Your task to perform on an android device: Search for alienware area 51 on bestbuy.com, select the first entry, add it to the cart, then select checkout. Image 0: 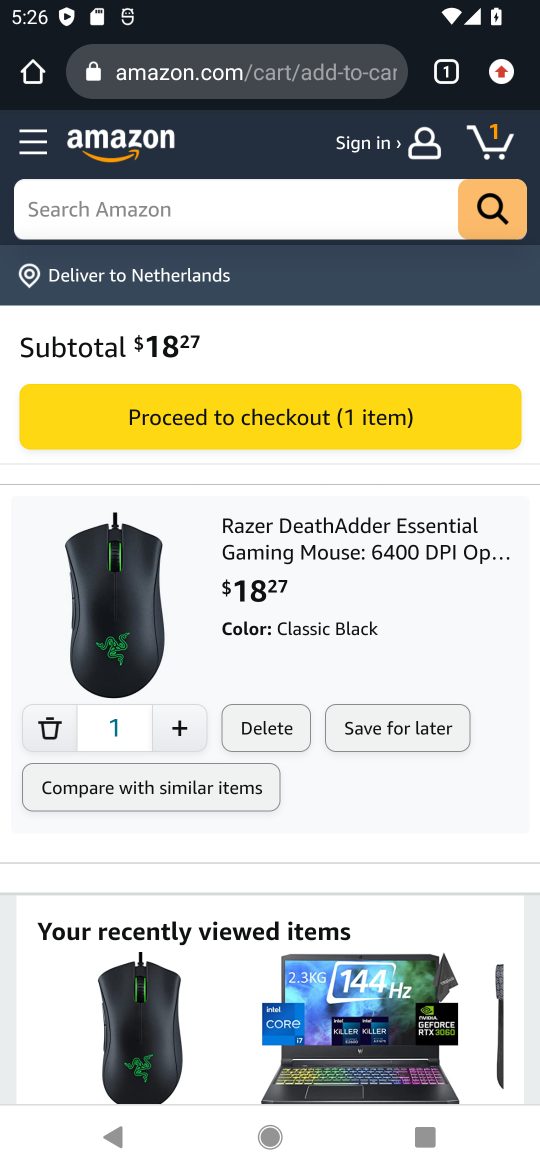
Step 0: press home button
Your task to perform on an android device: Search for alienware area 51 on bestbuy.com, select the first entry, add it to the cart, then select checkout. Image 1: 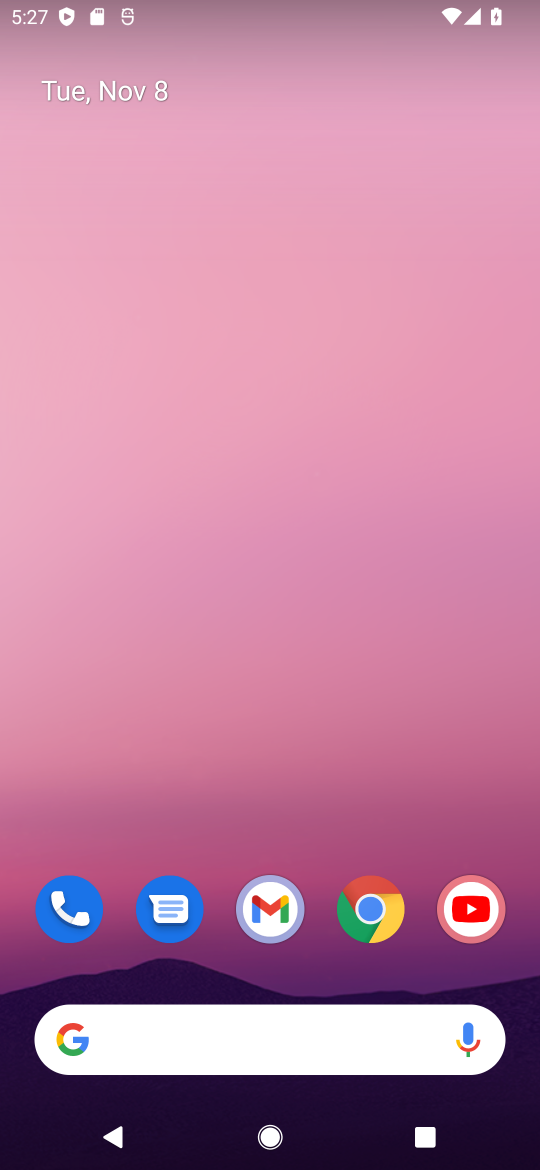
Step 1: click (365, 909)
Your task to perform on an android device: Search for alienware area 51 on bestbuy.com, select the first entry, add it to the cart, then select checkout. Image 2: 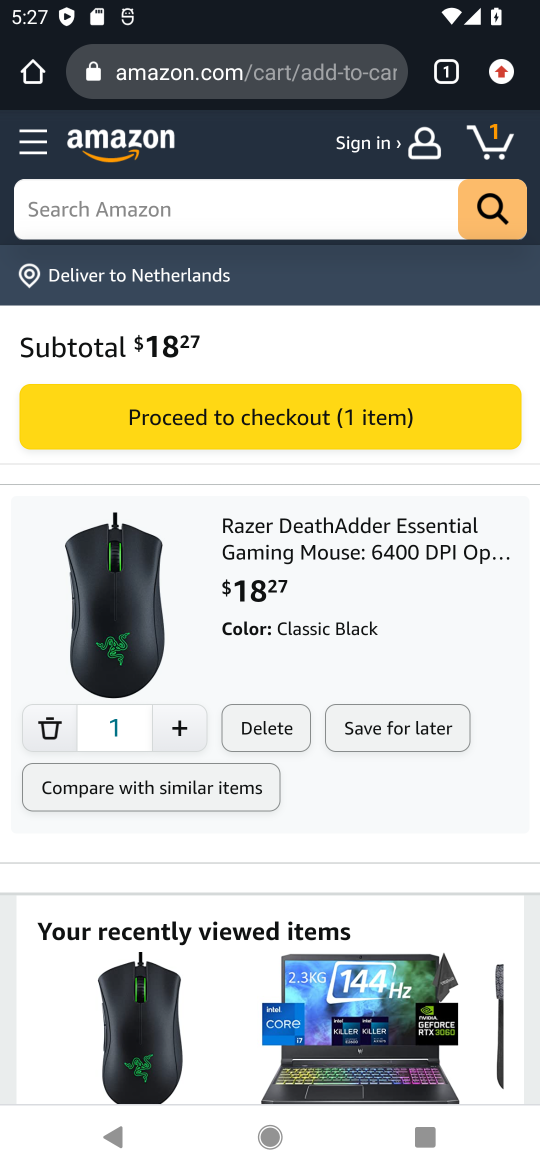
Step 2: click (216, 72)
Your task to perform on an android device: Search for alienware area 51 on bestbuy.com, select the first entry, add it to the cart, then select checkout. Image 3: 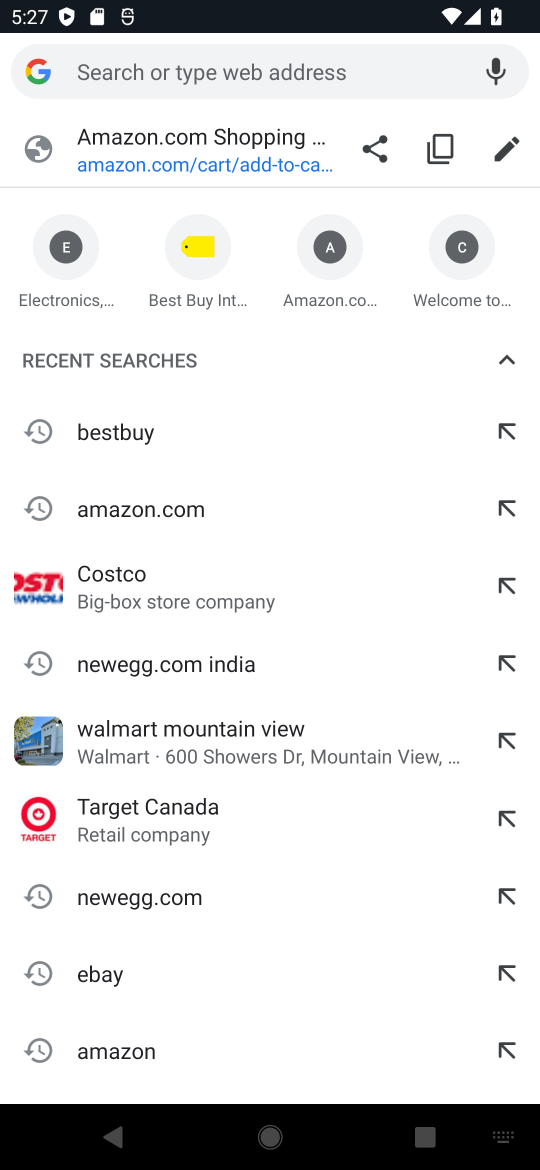
Step 3: click (216, 72)
Your task to perform on an android device: Search for alienware area 51 on bestbuy.com, select the first entry, add it to the cart, then select checkout. Image 4: 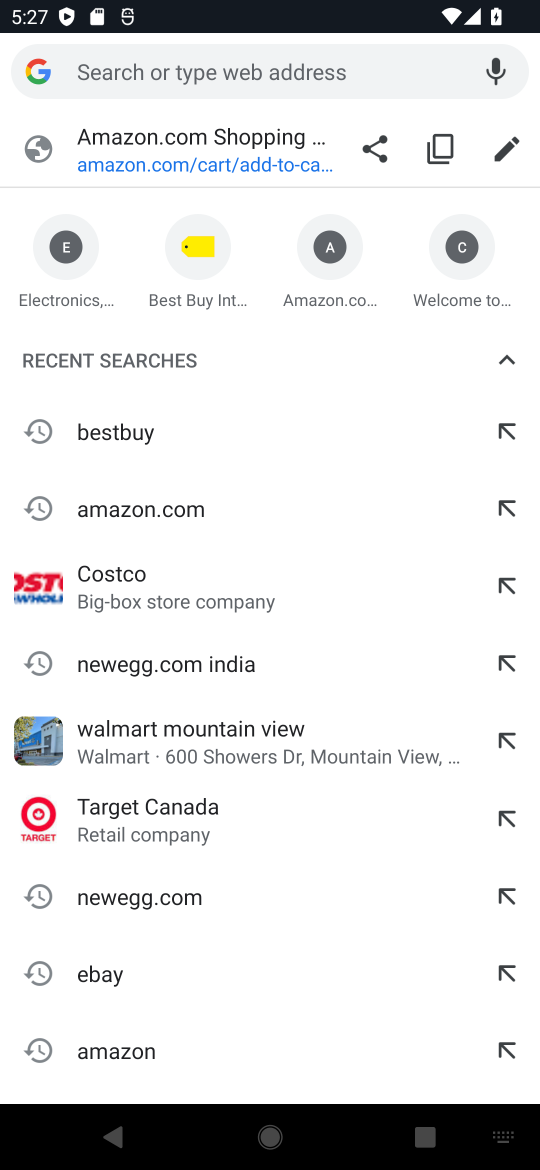
Step 4: click (118, 429)
Your task to perform on an android device: Search for alienware area 51 on bestbuy.com, select the first entry, add it to the cart, then select checkout. Image 5: 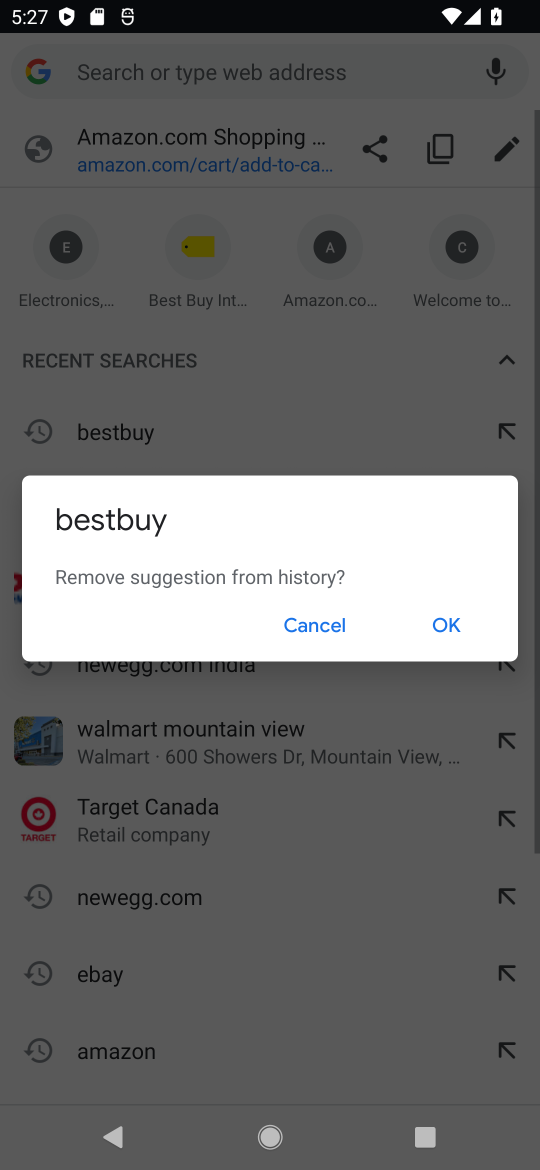
Step 5: click (111, 437)
Your task to perform on an android device: Search for alienware area 51 on bestbuy.com, select the first entry, add it to the cart, then select checkout. Image 6: 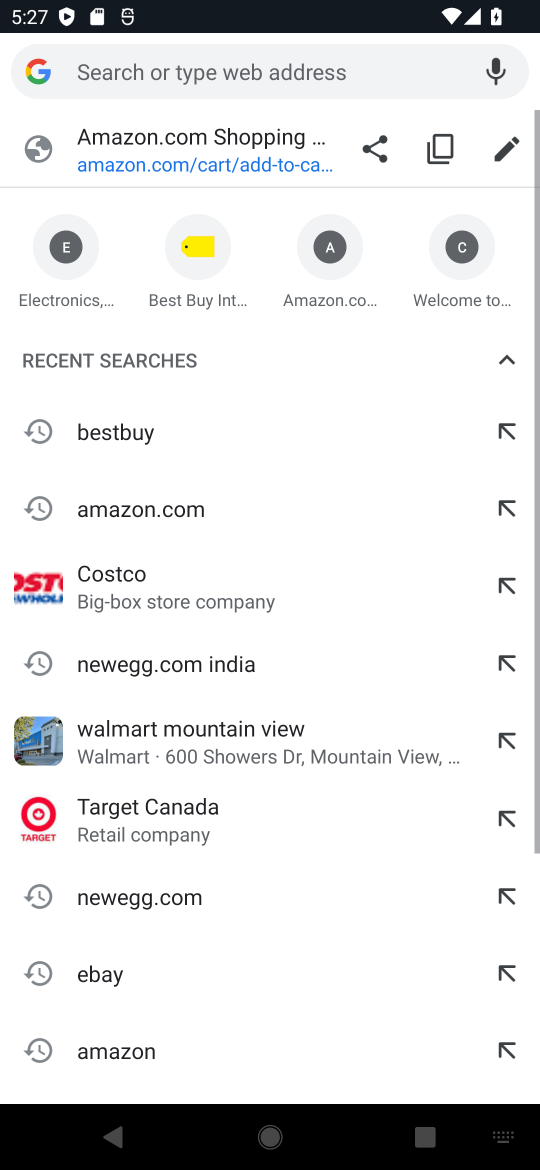
Step 6: click (111, 437)
Your task to perform on an android device: Search for alienware area 51 on bestbuy.com, select the first entry, add it to the cart, then select checkout. Image 7: 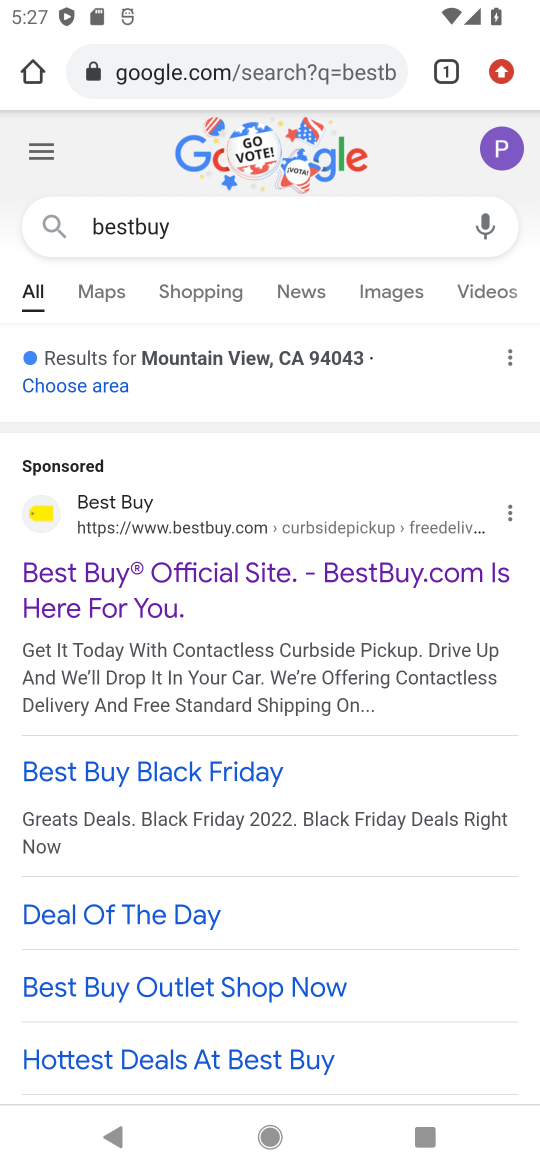
Step 7: click (105, 569)
Your task to perform on an android device: Search for alienware area 51 on bestbuy.com, select the first entry, add it to the cart, then select checkout. Image 8: 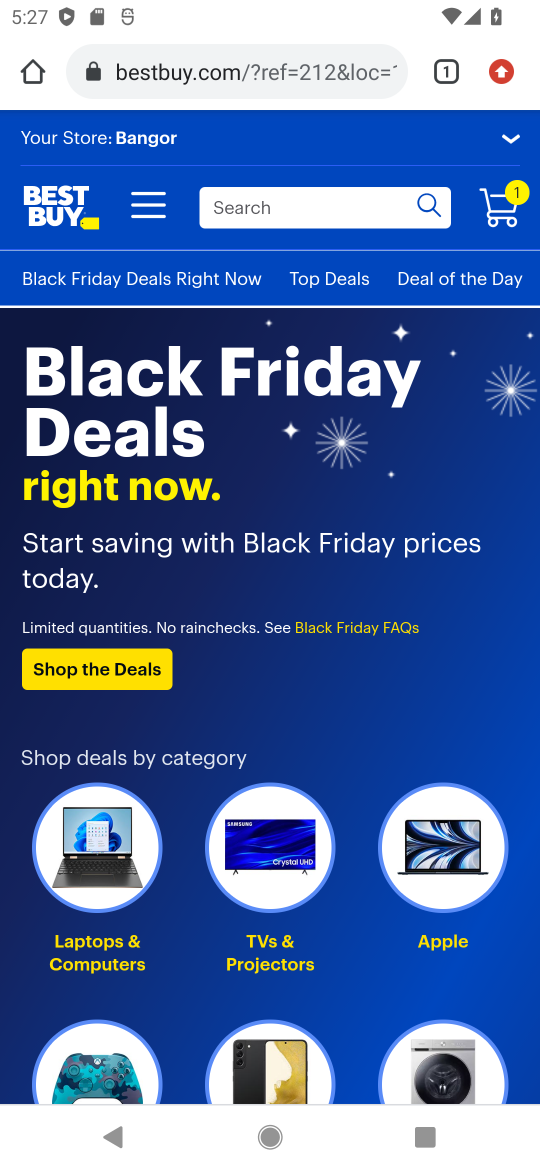
Step 8: click (264, 207)
Your task to perform on an android device: Search for alienware area 51 on bestbuy.com, select the first entry, add it to the cart, then select checkout. Image 9: 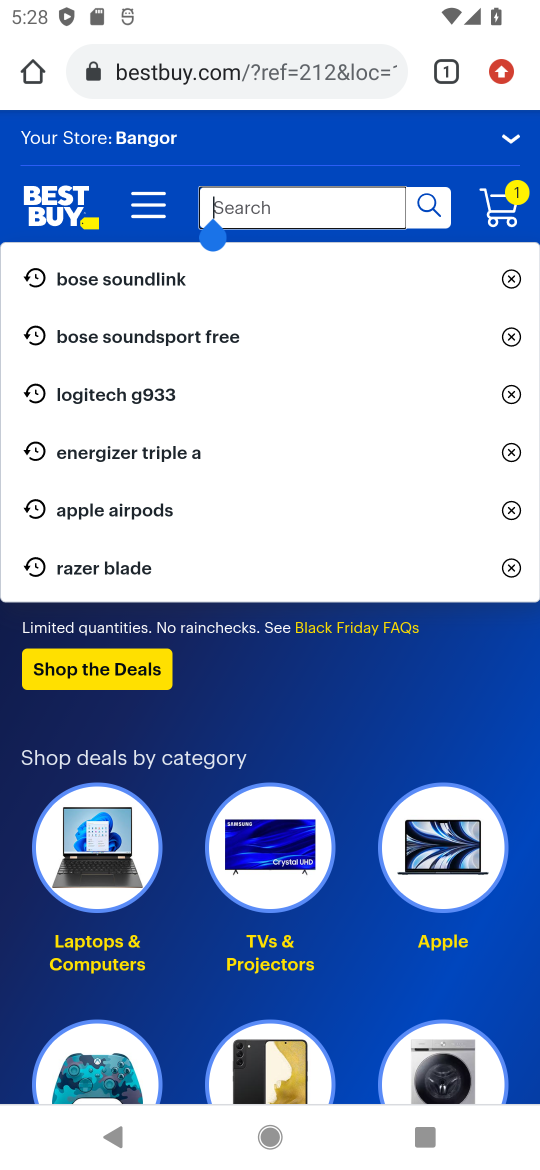
Step 9: type "alienware area 51"
Your task to perform on an android device: Search for alienware area 51 on bestbuy.com, select the first entry, add it to the cart, then select checkout. Image 10: 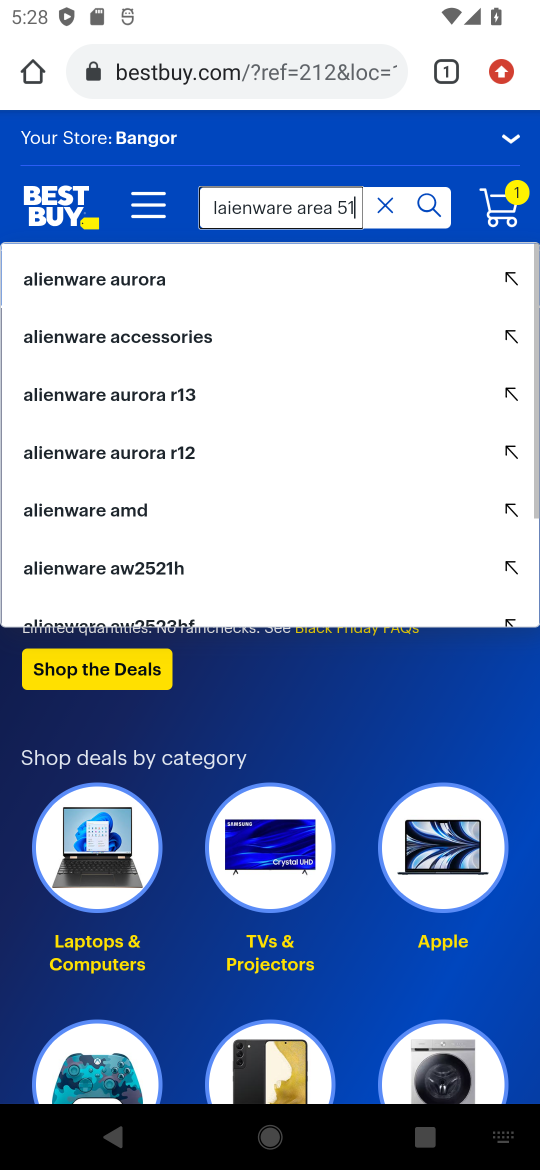
Step 10: press enter
Your task to perform on an android device: Search for alienware area 51 on bestbuy.com, select the first entry, add it to the cart, then select checkout. Image 11: 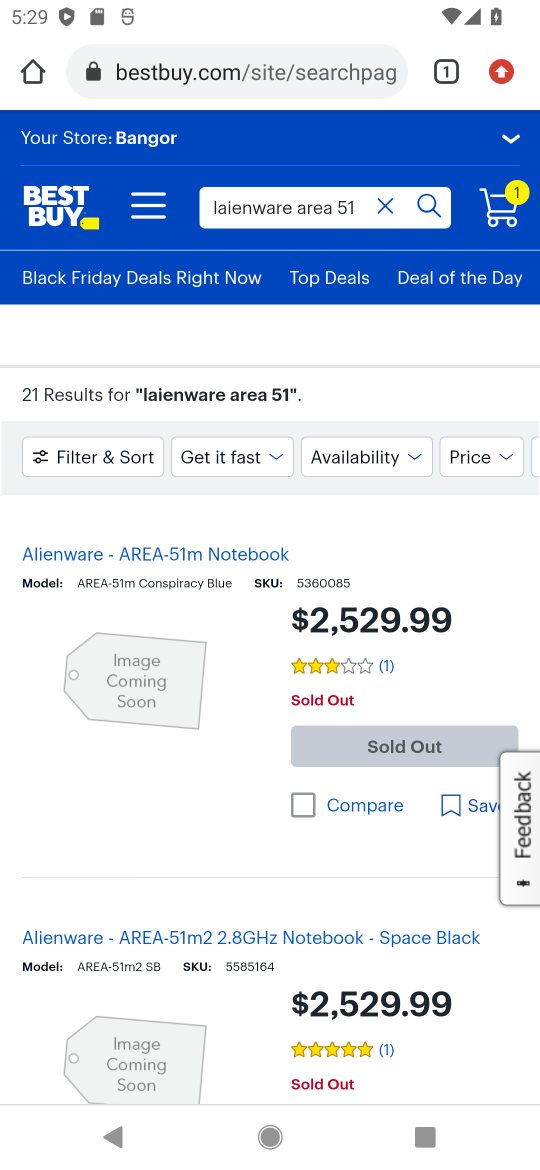
Step 11: task complete